Your task to perform on an android device: Open the calendar and show me this week's events? Image 0: 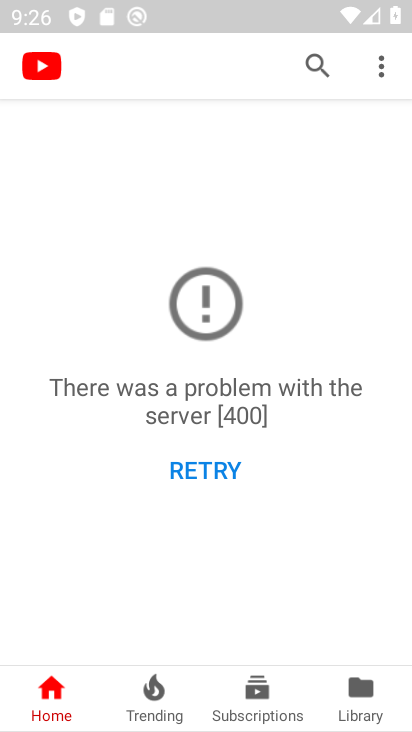
Step 0: press home button
Your task to perform on an android device: Open the calendar and show me this week's events? Image 1: 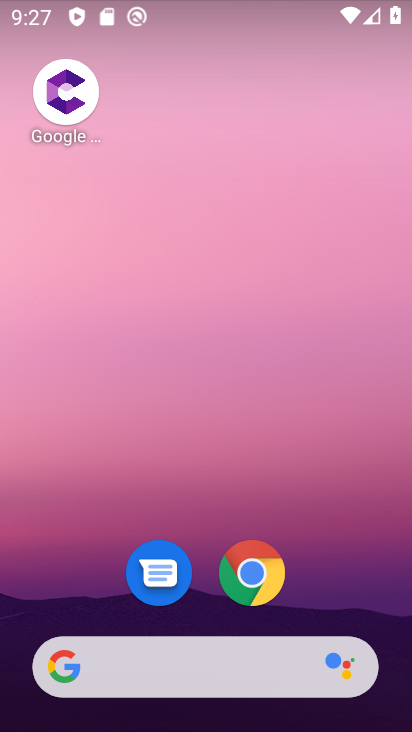
Step 1: drag from (200, 613) to (230, 257)
Your task to perform on an android device: Open the calendar and show me this week's events? Image 2: 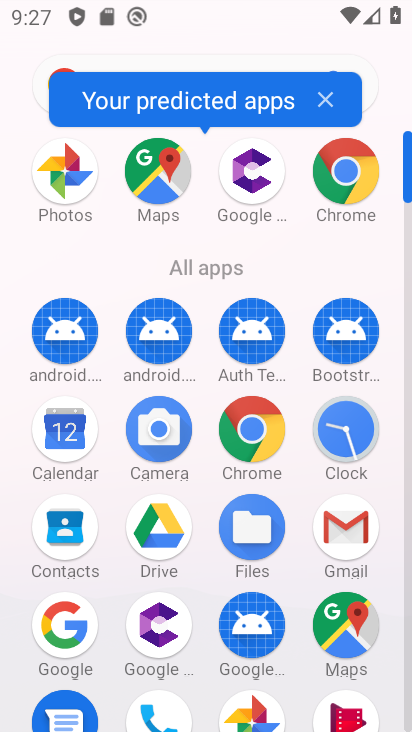
Step 2: click (67, 446)
Your task to perform on an android device: Open the calendar and show me this week's events? Image 3: 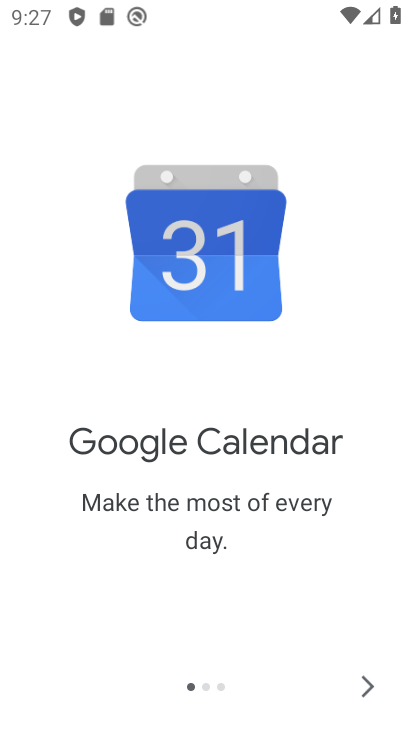
Step 3: click (361, 675)
Your task to perform on an android device: Open the calendar and show me this week's events? Image 4: 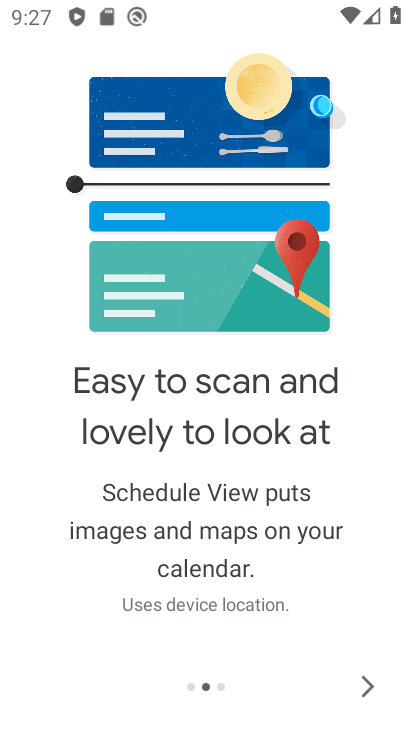
Step 4: click (361, 675)
Your task to perform on an android device: Open the calendar and show me this week's events? Image 5: 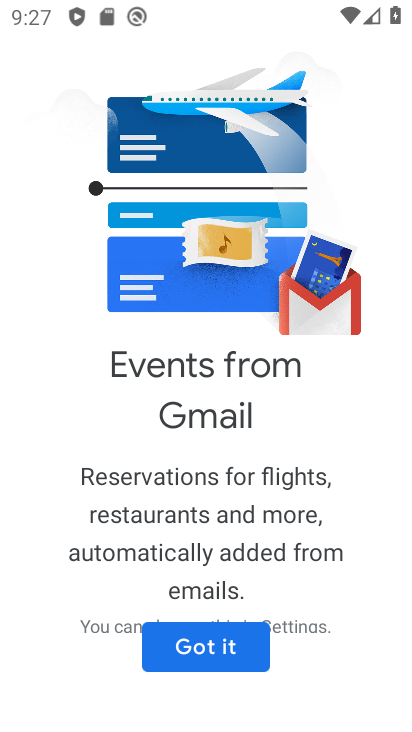
Step 5: click (216, 644)
Your task to perform on an android device: Open the calendar and show me this week's events? Image 6: 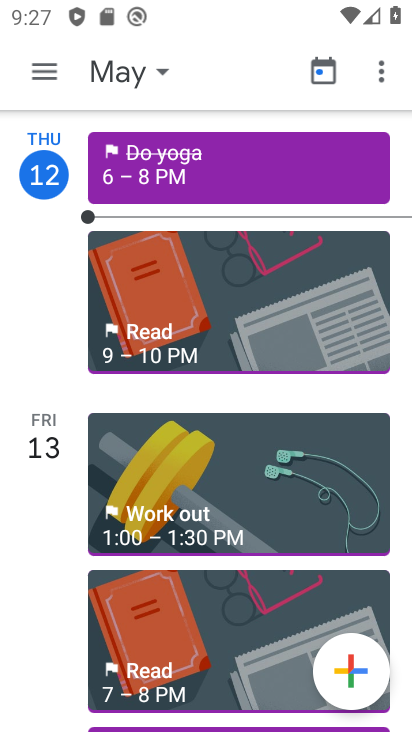
Step 6: click (147, 81)
Your task to perform on an android device: Open the calendar and show me this week's events? Image 7: 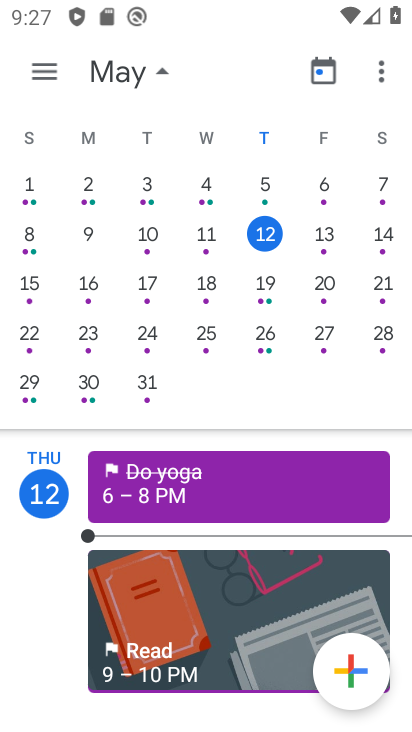
Step 7: click (330, 234)
Your task to perform on an android device: Open the calendar and show me this week's events? Image 8: 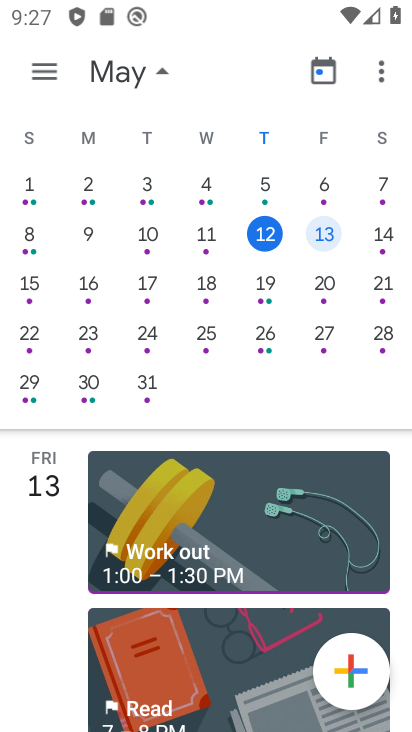
Step 8: drag from (259, 491) to (264, 327)
Your task to perform on an android device: Open the calendar and show me this week's events? Image 9: 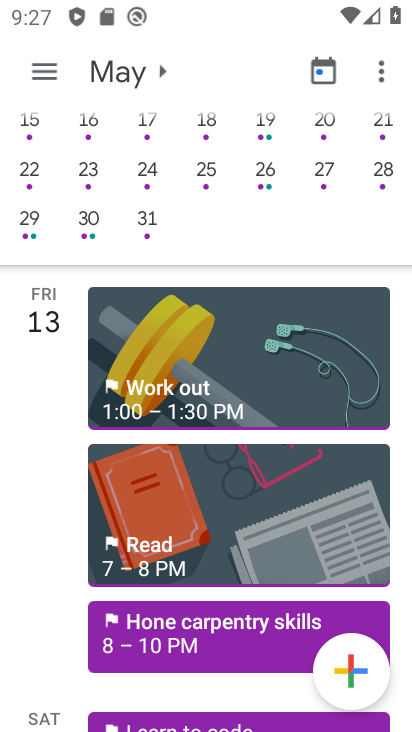
Step 9: click (195, 533)
Your task to perform on an android device: Open the calendar and show me this week's events? Image 10: 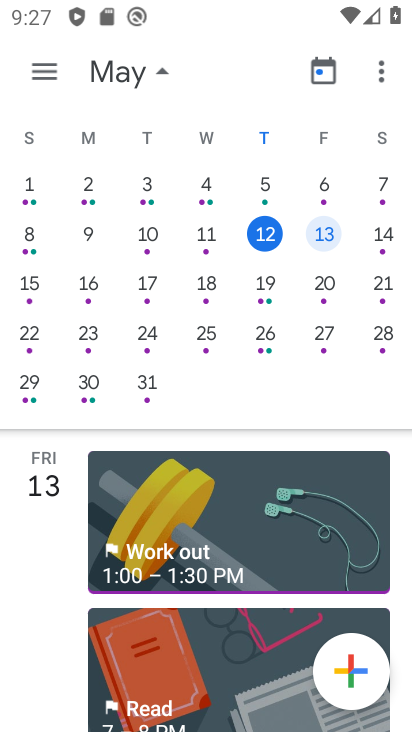
Step 10: task complete